Your task to perform on an android device: Go to wifi settings Image 0: 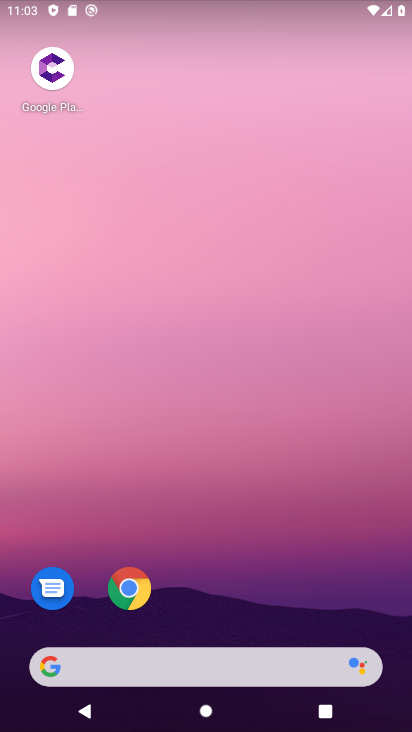
Step 0: drag from (253, 586) to (280, 173)
Your task to perform on an android device: Go to wifi settings Image 1: 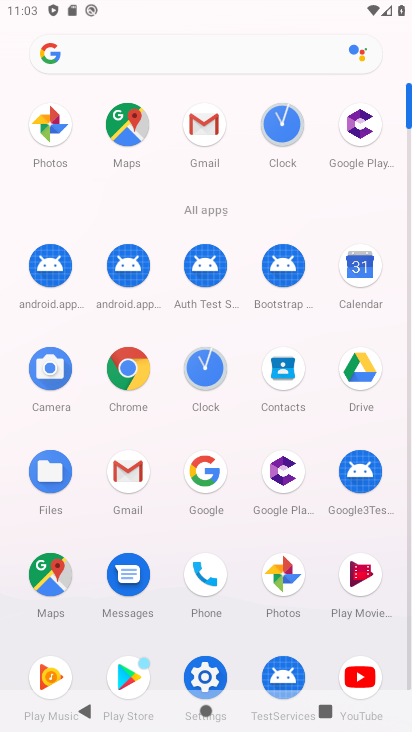
Step 1: click (202, 678)
Your task to perform on an android device: Go to wifi settings Image 2: 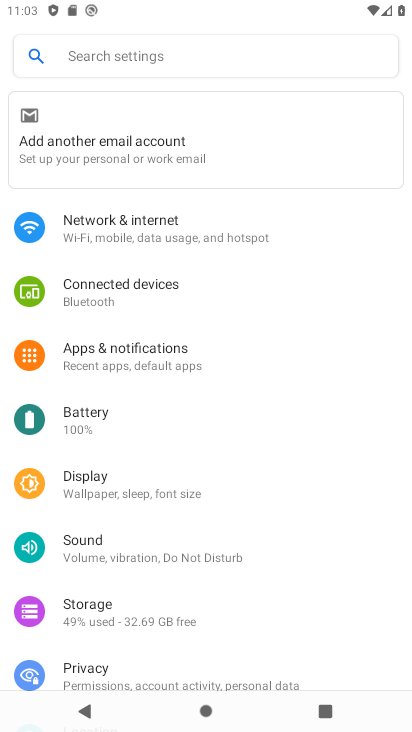
Step 2: click (114, 226)
Your task to perform on an android device: Go to wifi settings Image 3: 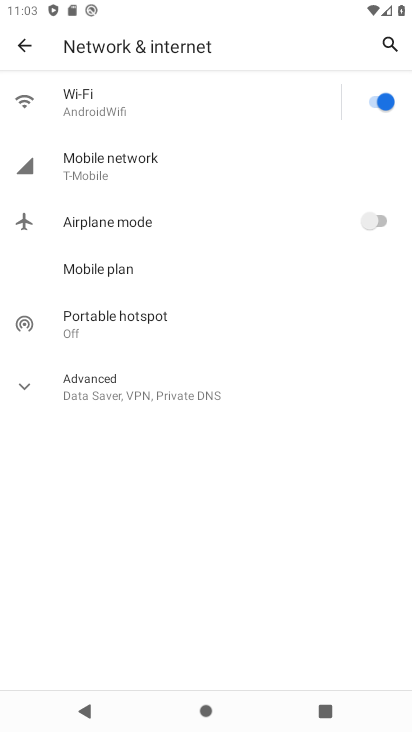
Step 3: click (99, 108)
Your task to perform on an android device: Go to wifi settings Image 4: 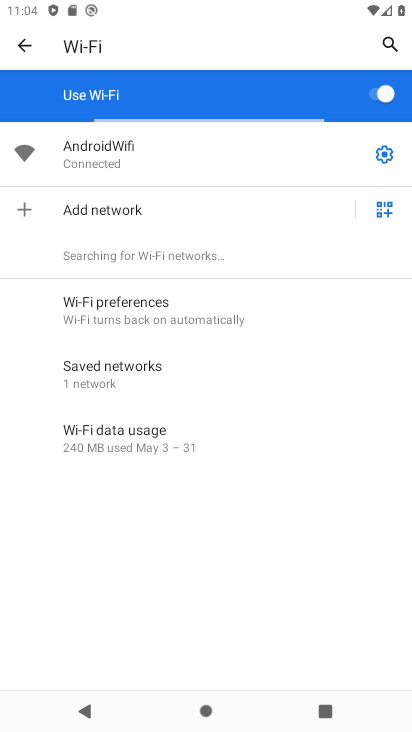
Step 4: task complete